Your task to perform on an android device: manage bookmarks in the chrome app Image 0: 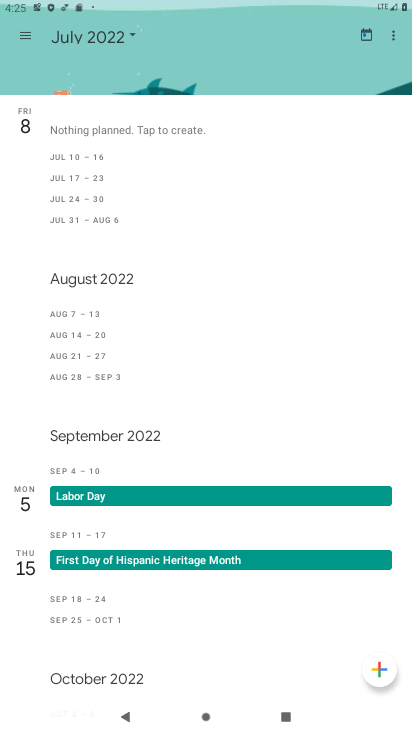
Step 0: press home button
Your task to perform on an android device: manage bookmarks in the chrome app Image 1: 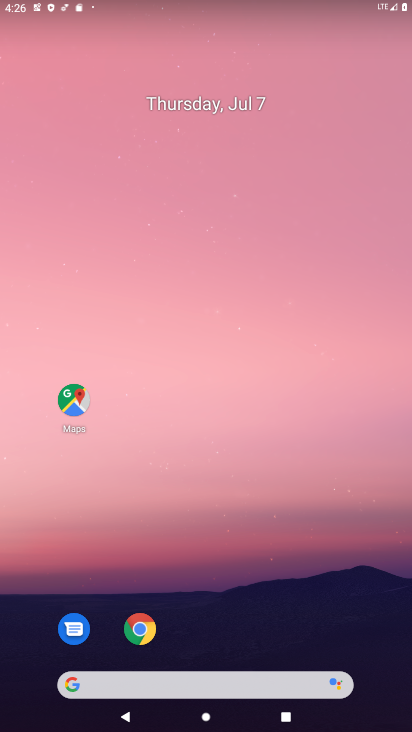
Step 1: drag from (223, 625) to (267, 224)
Your task to perform on an android device: manage bookmarks in the chrome app Image 2: 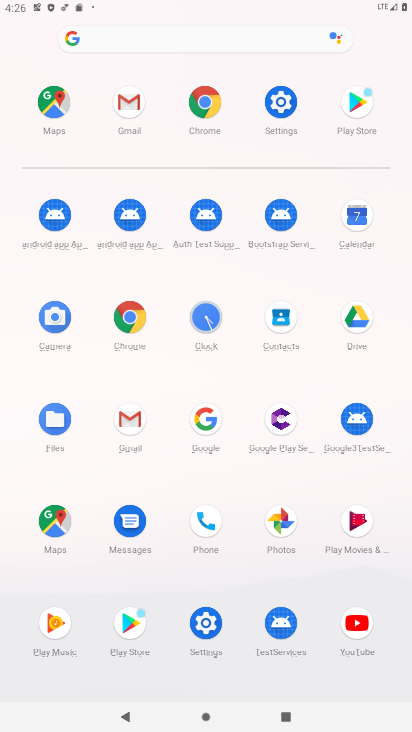
Step 2: click (216, 87)
Your task to perform on an android device: manage bookmarks in the chrome app Image 3: 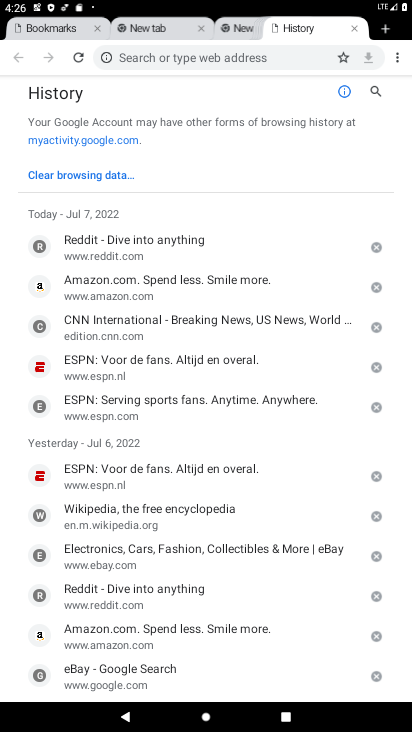
Step 3: click (102, 245)
Your task to perform on an android device: manage bookmarks in the chrome app Image 4: 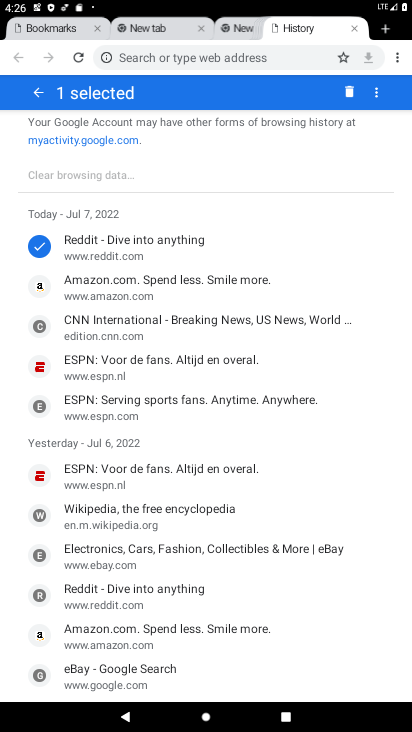
Step 4: click (111, 322)
Your task to perform on an android device: manage bookmarks in the chrome app Image 5: 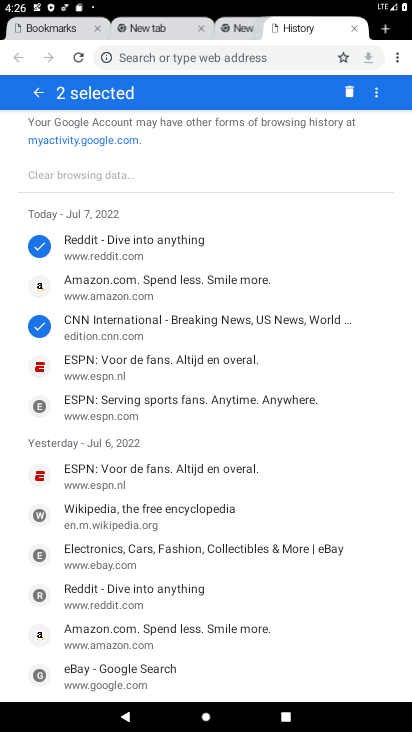
Step 5: click (355, 25)
Your task to perform on an android device: manage bookmarks in the chrome app Image 6: 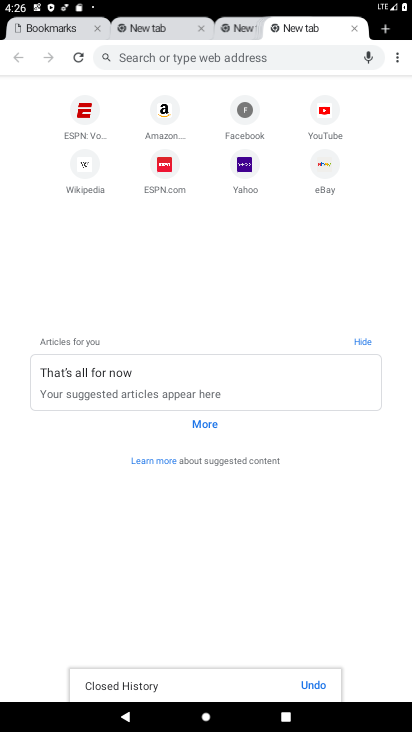
Step 6: click (401, 56)
Your task to perform on an android device: manage bookmarks in the chrome app Image 7: 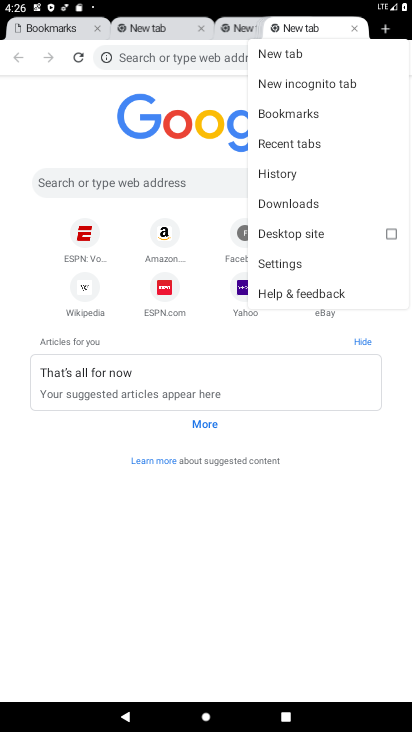
Step 7: click (284, 121)
Your task to perform on an android device: manage bookmarks in the chrome app Image 8: 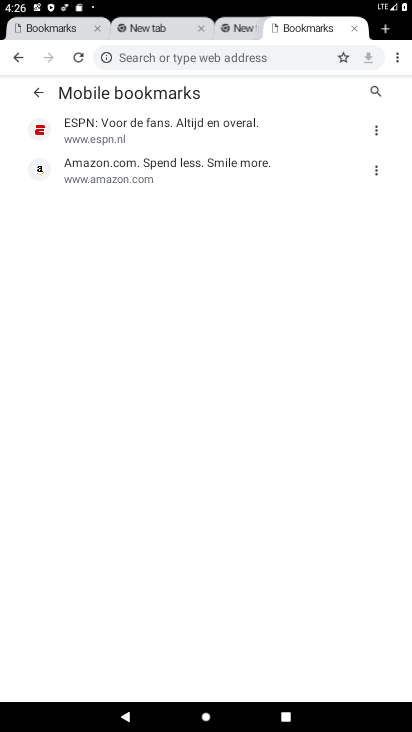
Step 8: click (89, 114)
Your task to perform on an android device: manage bookmarks in the chrome app Image 9: 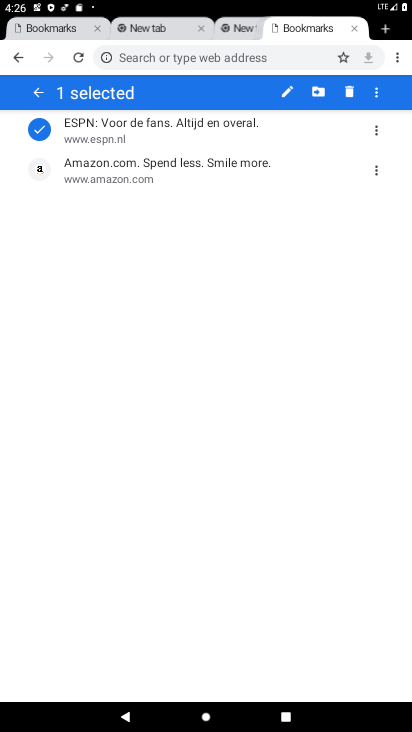
Step 9: click (91, 162)
Your task to perform on an android device: manage bookmarks in the chrome app Image 10: 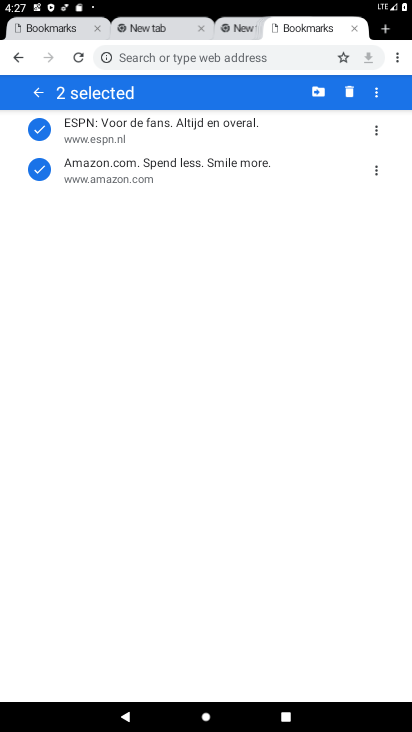
Step 10: task complete